Your task to perform on an android device: Open the Play Movies app and select the watchlist tab. Image 0: 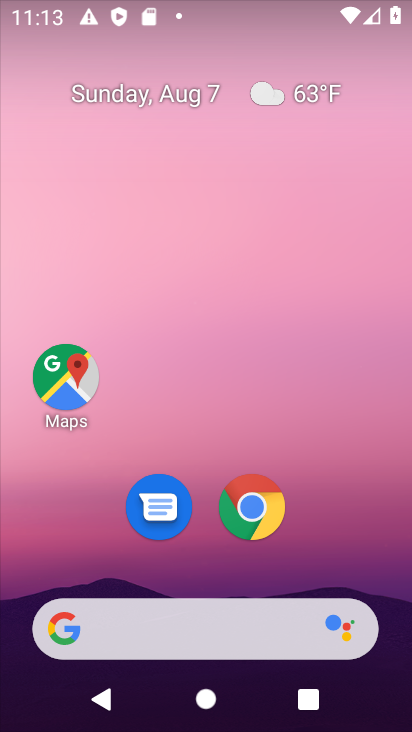
Step 0: drag from (357, 546) to (329, 181)
Your task to perform on an android device: Open the Play Movies app and select the watchlist tab. Image 1: 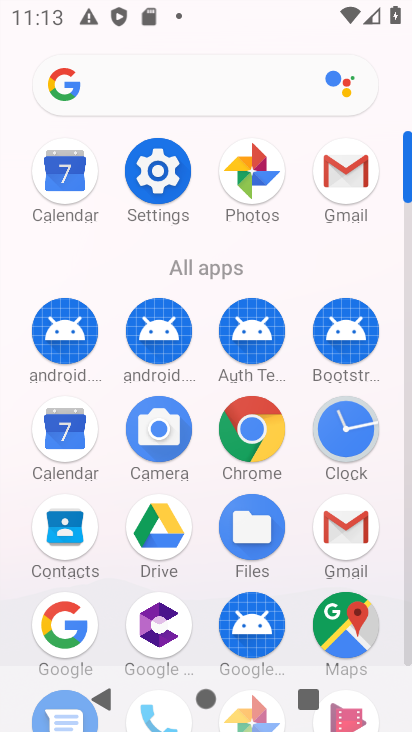
Step 1: drag from (297, 280) to (276, 14)
Your task to perform on an android device: Open the Play Movies app and select the watchlist tab. Image 2: 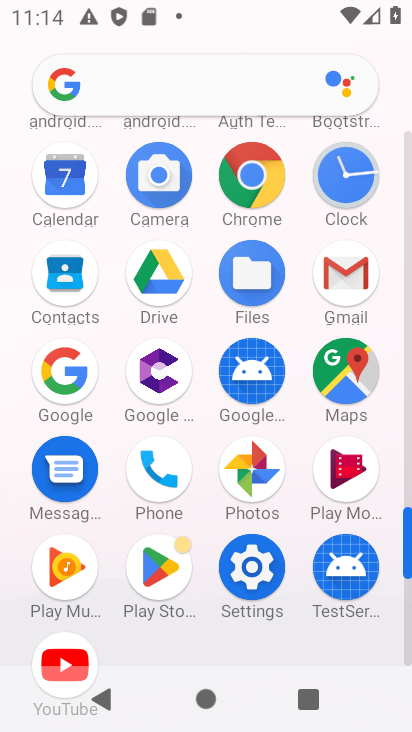
Step 2: click (333, 480)
Your task to perform on an android device: Open the Play Movies app and select the watchlist tab. Image 3: 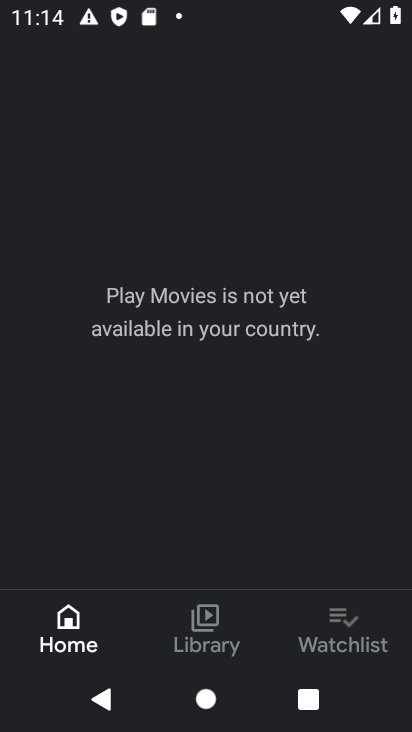
Step 3: click (352, 627)
Your task to perform on an android device: Open the Play Movies app and select the watchlist tab. Image 4: 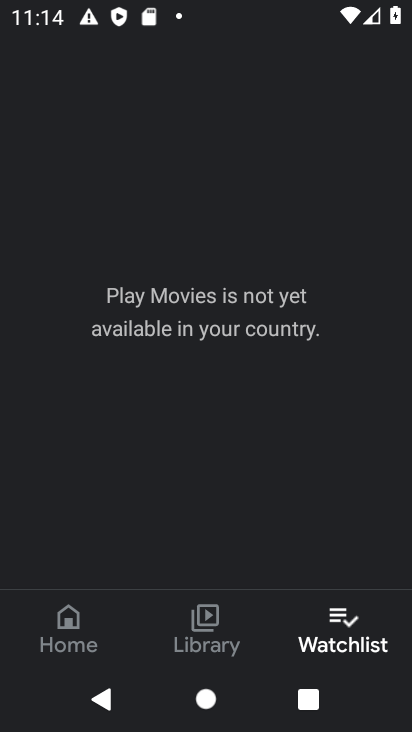
Step 4: task complete